Your task to perform on an android device: change timer sound Image 0: 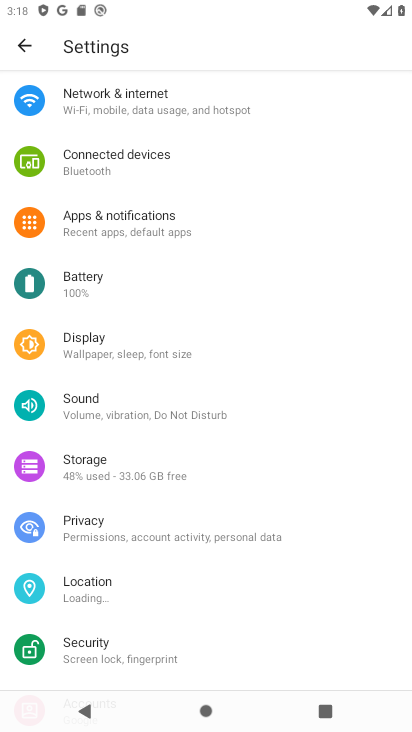
Step 0: press home button
Your task to perform on an android device: change timer sound Image 1: 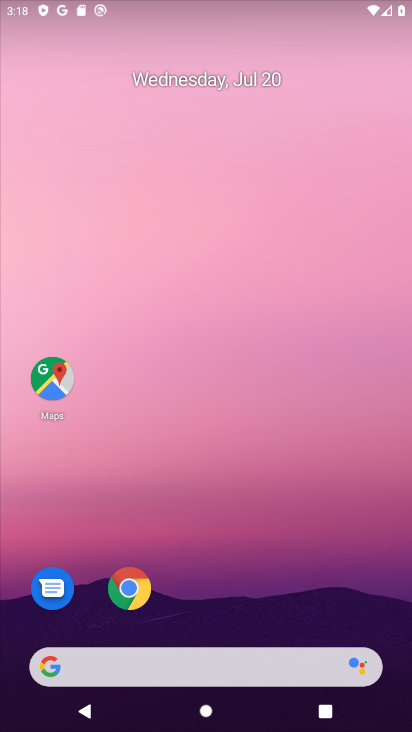
Step 1: drag from (209, 597) to (229, 109)
Your task to perform on an android device: change timer sound Image 2: 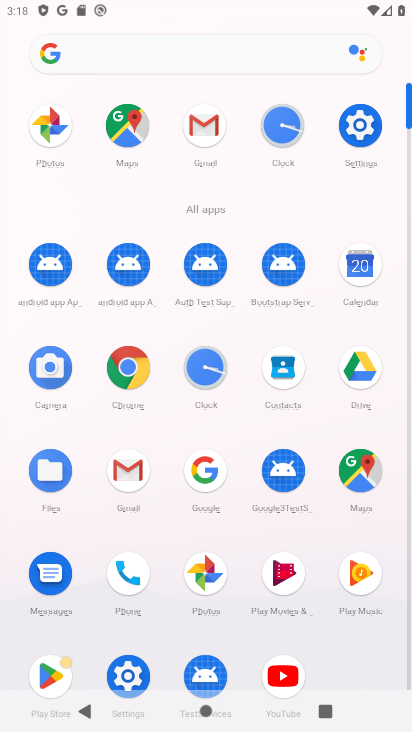
Step 2: click (203, 361)
Your task to perform on an android device: change timer sound Image 3: 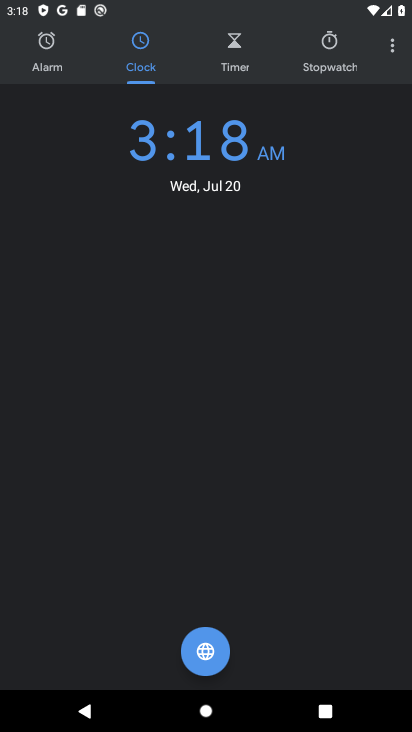
Step 3: click (396, 59)
Your task to perform on an android device: change timer sound Image 4: 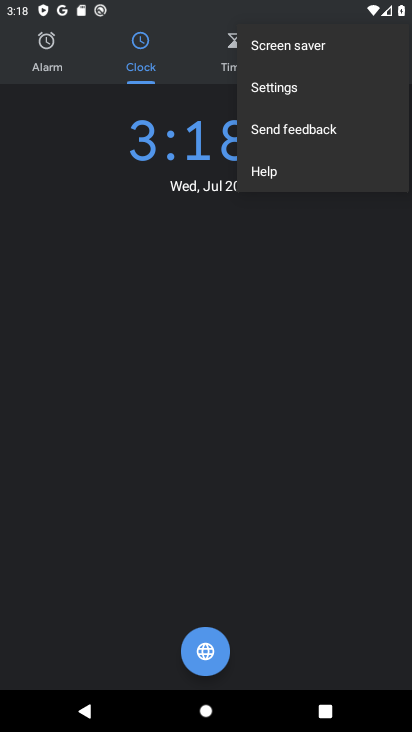
Step 4: click (307, 100)
Your task to perform on an android device: change timer sound Image 5: 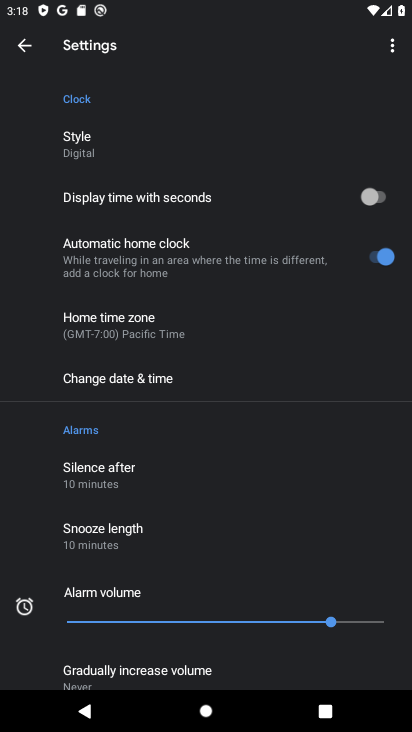
Step 5: drag from (182, 459) to (196, 172)
Your task to perform on an android device: change timer sound Image 6: 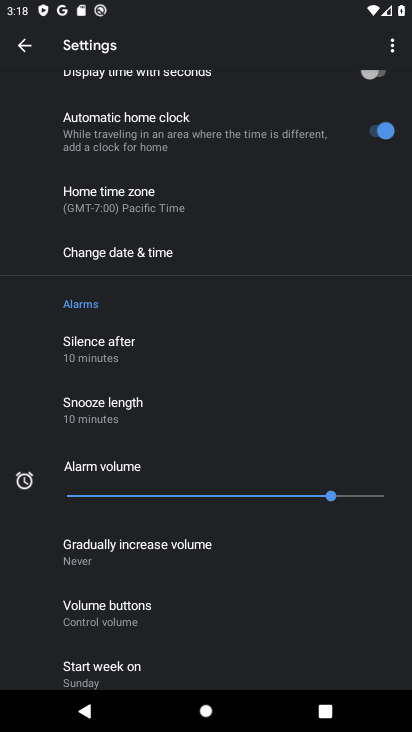
Step 6: drag from (168, 618) to (262, 177)
Your task to perform on an android device: change timer sound Image 7: 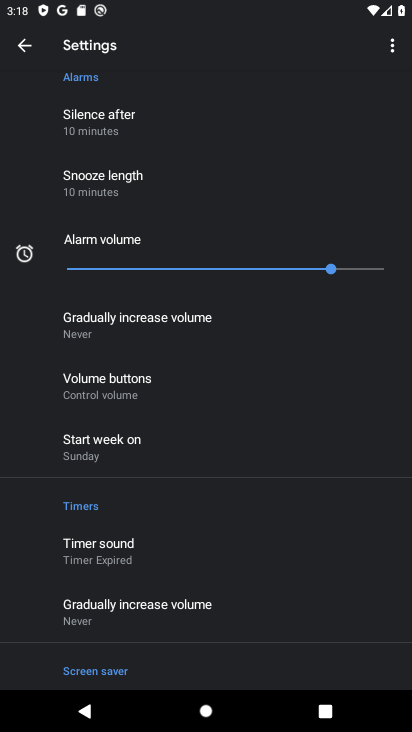
Step 7: click (153, 549)
Your task to perform on an android device: change timer sound Image 8: 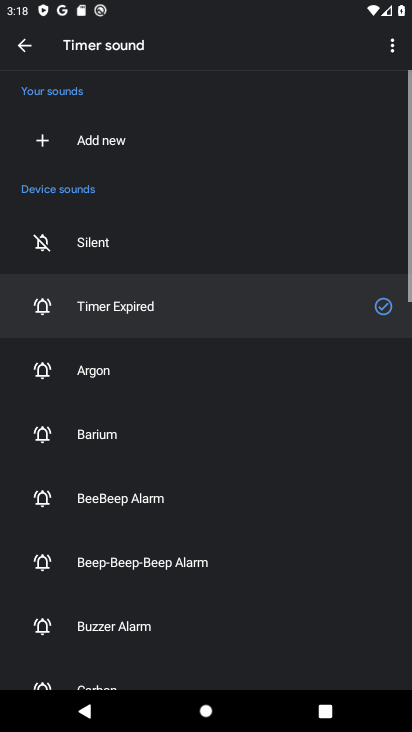
Step 8: click (153, 549)
Your task to perform on an android device: change timer sound Image 9: 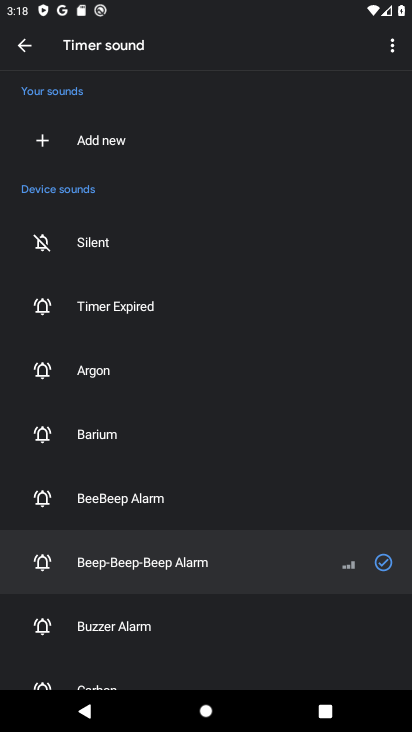
Step 9: task complete